Your task to perform on an android device: Check the weather Image 0: 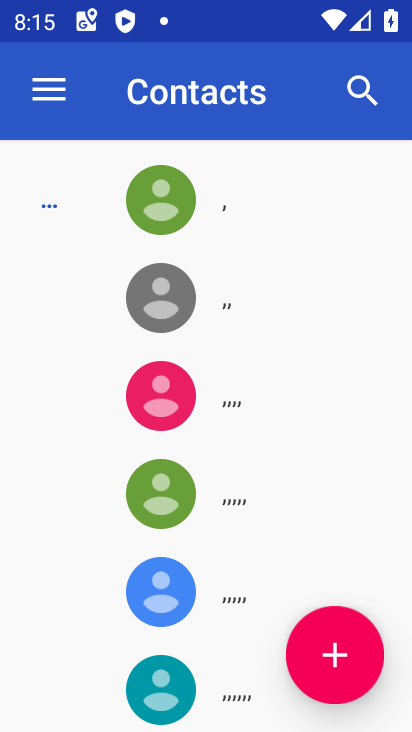
Step 0: press home button
Your task to perform on an android device: Check the weather Image 1: 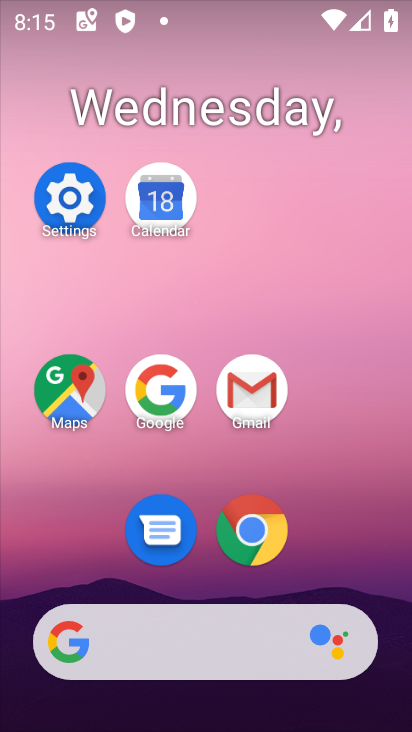
Step 1: click (177, 412)
Your task to perform on an android device: Check the weather Image 2: 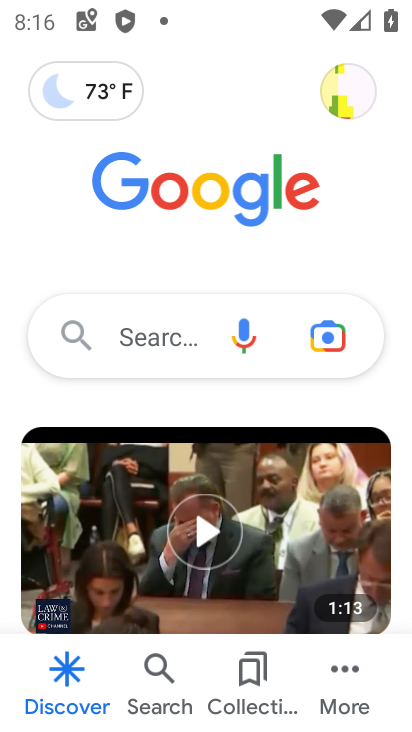
Step 2: click (101, 103)
Your task to perform on an android device: Check the weather Image 3: 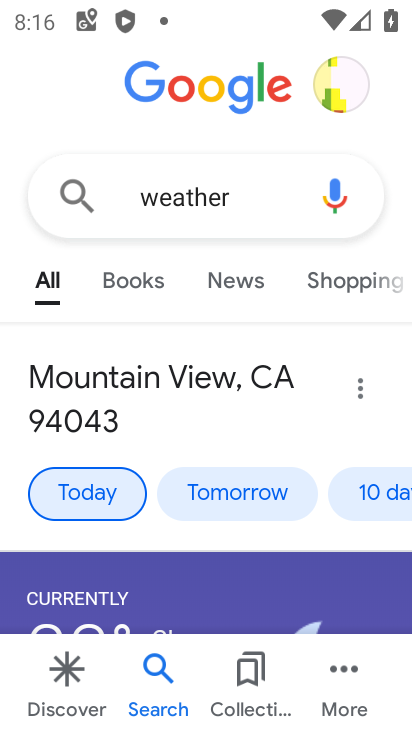
Step 3: task complete